Your task to perform on an android device: Open Yahoo.com Image 0: 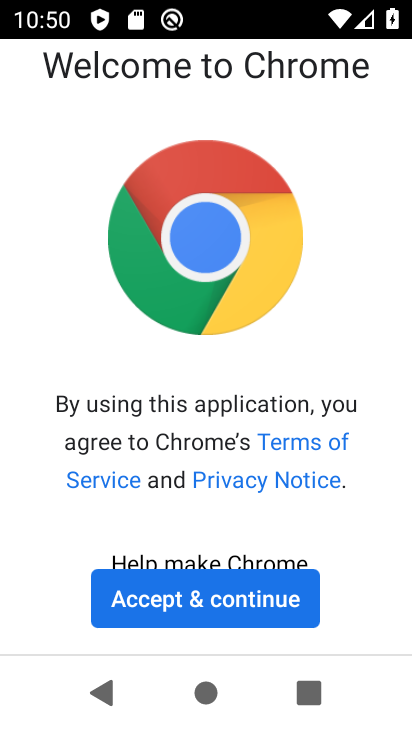
Step 0: click (226, 596)
Your task to perform on an android device: Open Yahoo.com Image 1: 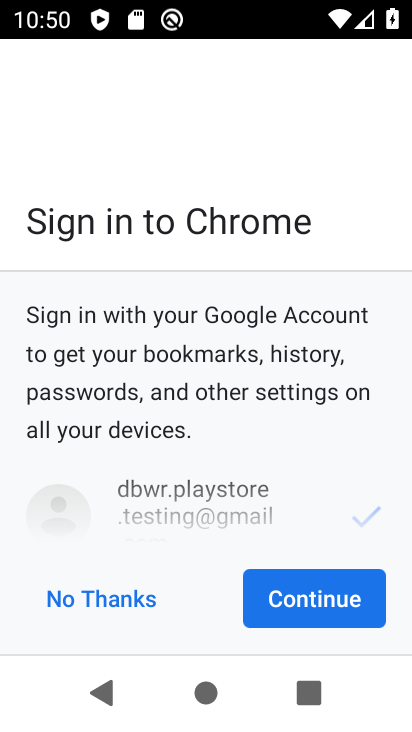
Step 1: click (284, 605)
Your task to perform on an android device: Open Yahoo.com Image 2: 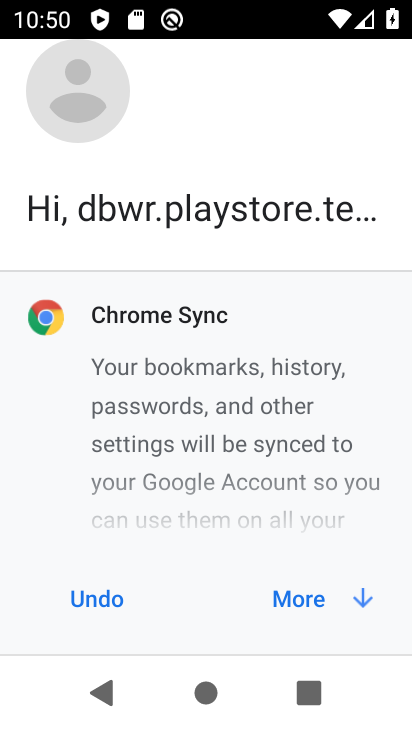
Step 2: click (340, 598)
Your task to perform on an android device: Open Yahoo.com Image 3: 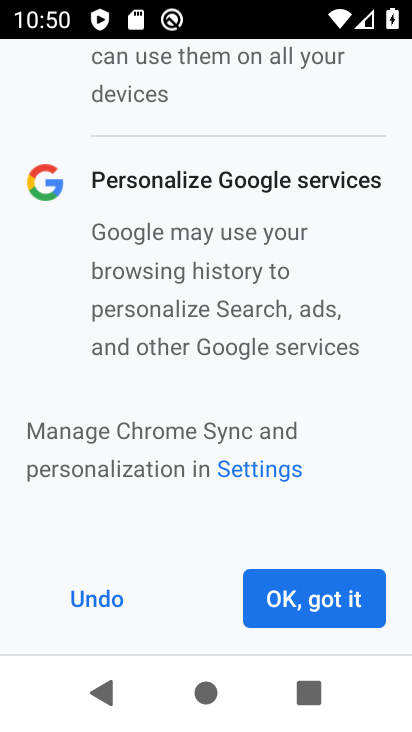
Step 3: click (349, 613)
Your task to perform on an android device: Open Yahoo.com Image 4: 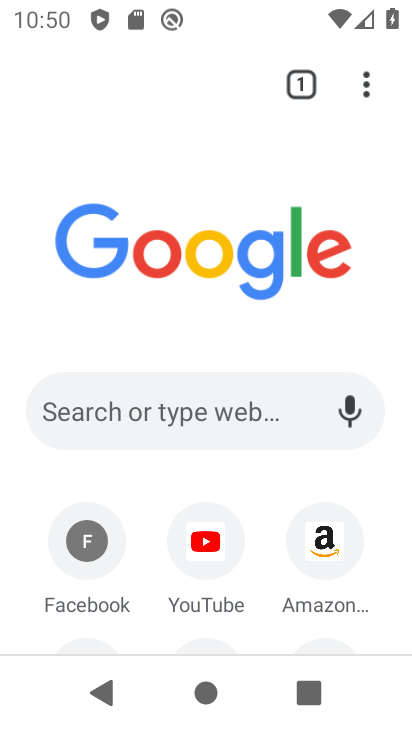
Step 4: click (175, 409)
Your task to perform on an android device: Open Yahoo.com Image 5: 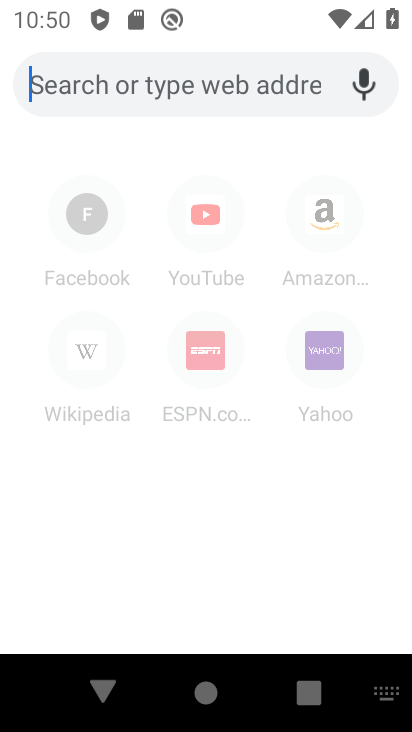
Step 5: click (333, 366)
Your task to perform on an android device: Open Yahoo.com Image 6: 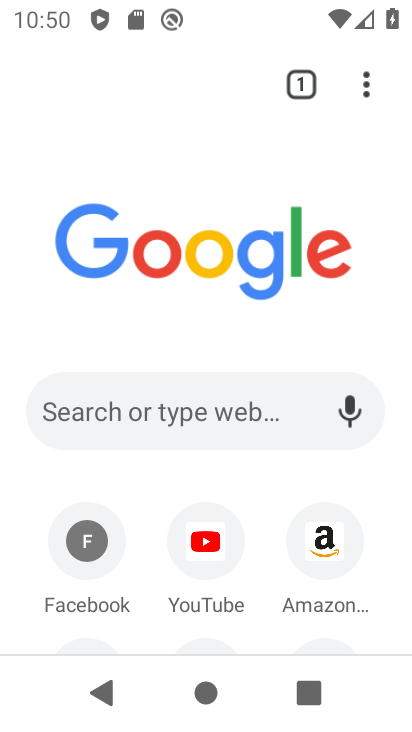
Step 6: drag from (305, 585) to (309, 303)
Your task to perform on an android device: Open Yahoo.com Image 7: 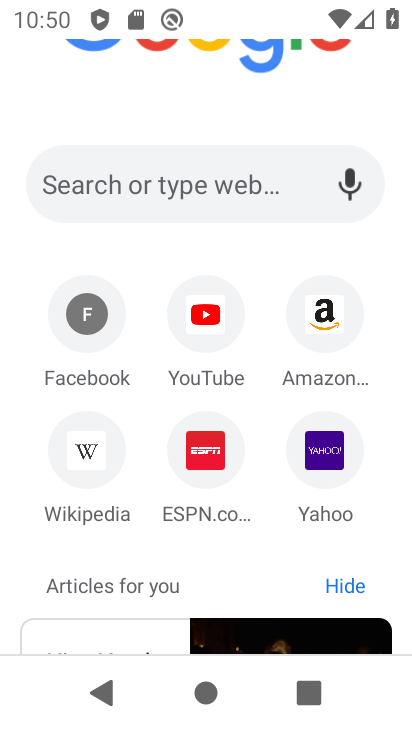
Step 7: click (337, 471)
Your task to perform on an android device: Open Yahoo.com Image 8: 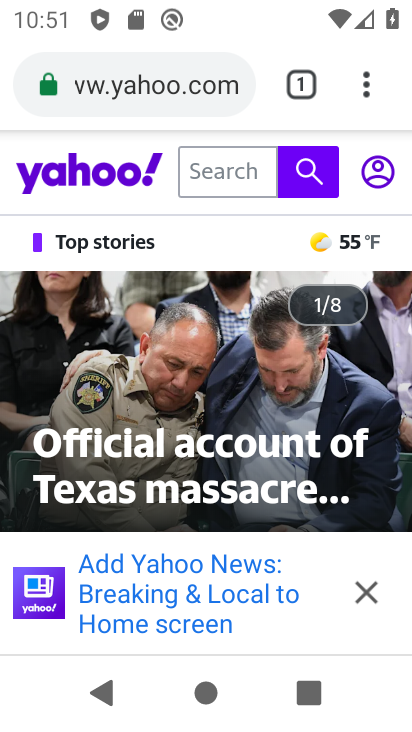
Step 8: task complete